Your task to perform on an android device: open app "Google Find My Device" (install if not already installed) Image 0: 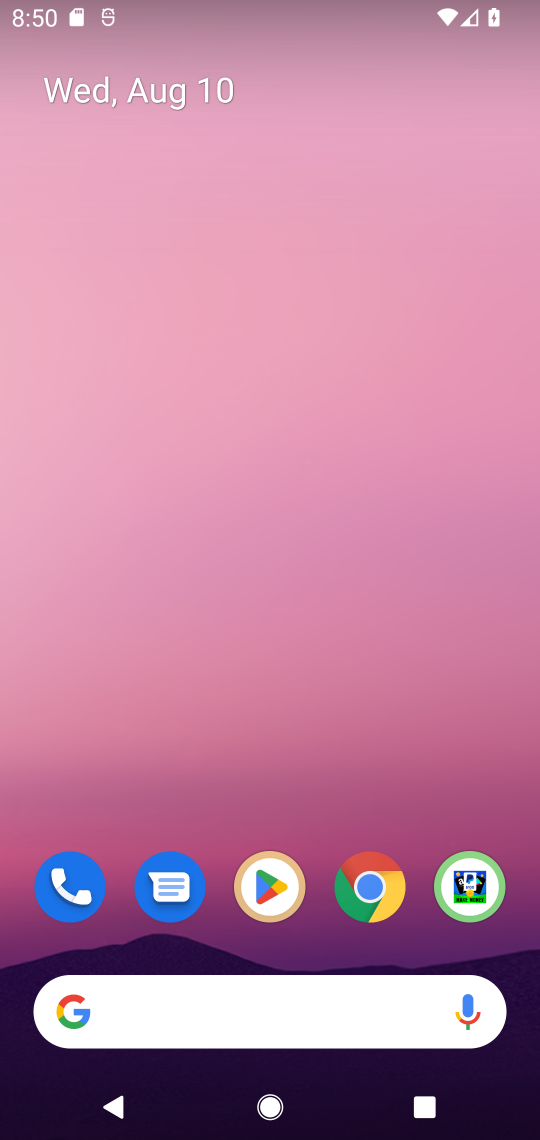
Step 0: drag from (210, 954) to (221, 61)
Your task to perform on an android device: open app "Google Find My Device" (install if not already installed) Image 1: 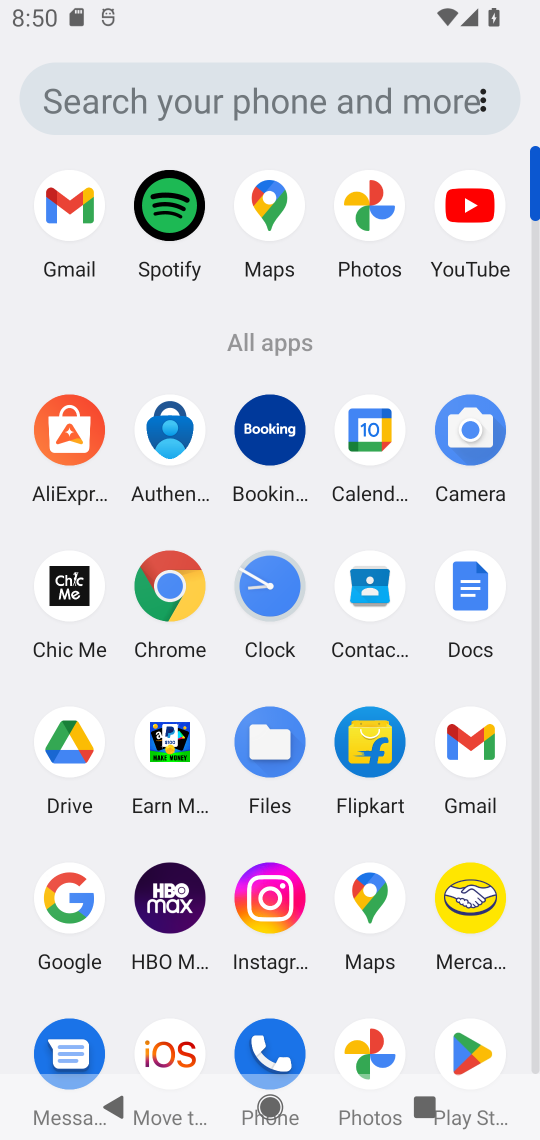
Step 1: click (465, 1037)
Your task to perform on an android device: open app "Google Find My Device" (install if not already installed) Image 2: 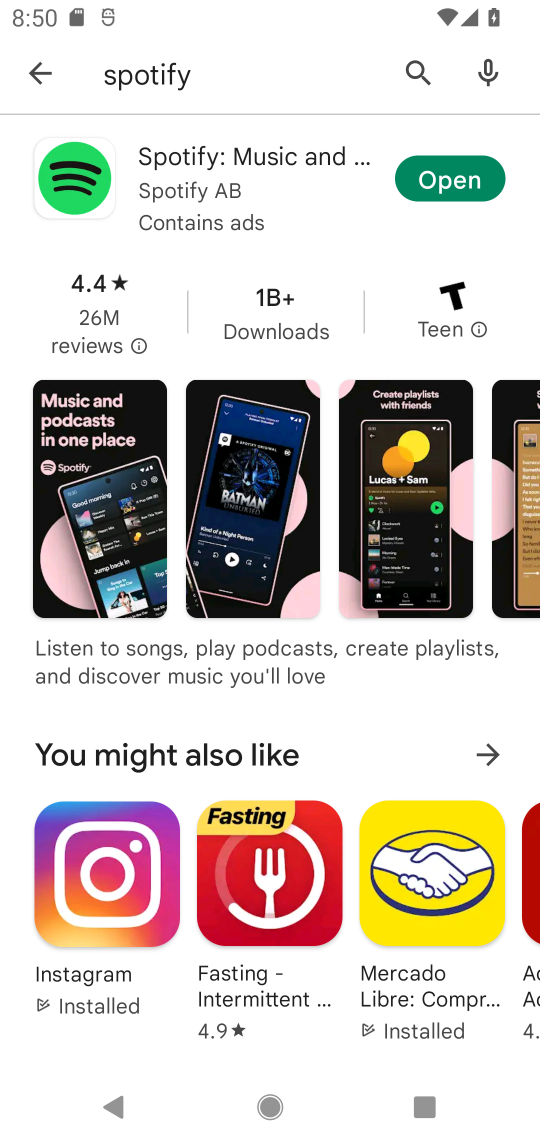
Step 2: click (402, 89)
Your task to perform on an android device: open app "Google Find My Device" (install if not already installed) Image 3: 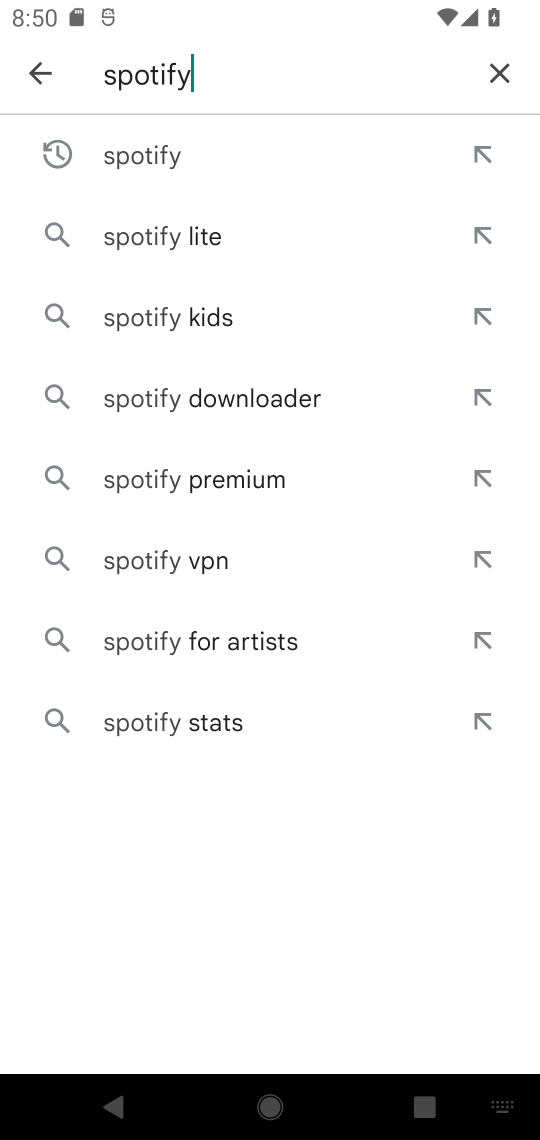
Step 3: click (481, 85)
Your task to perform on an android device: open app "Google Find My Device" (install if not already installed) Image 4: 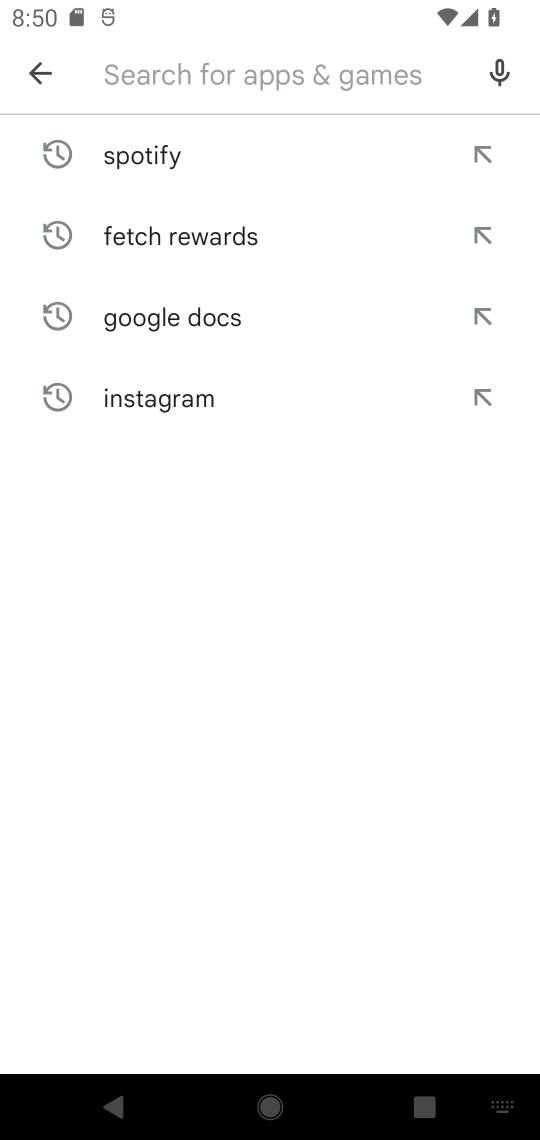
Step 4: type "google find my device"
Your task to perform on an android device: open app "Google Find My Device" (install if not already installed) Image 5: 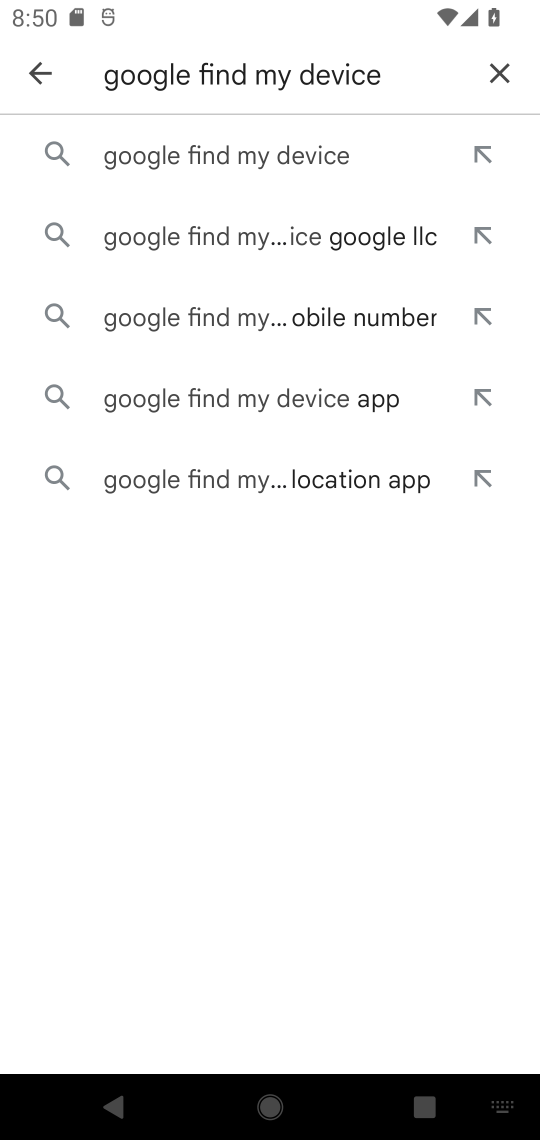
Step 5: click (325, 172)
Your task to perform on an android device: open app "Google Find My Device" (install if not already installed) Image 6: 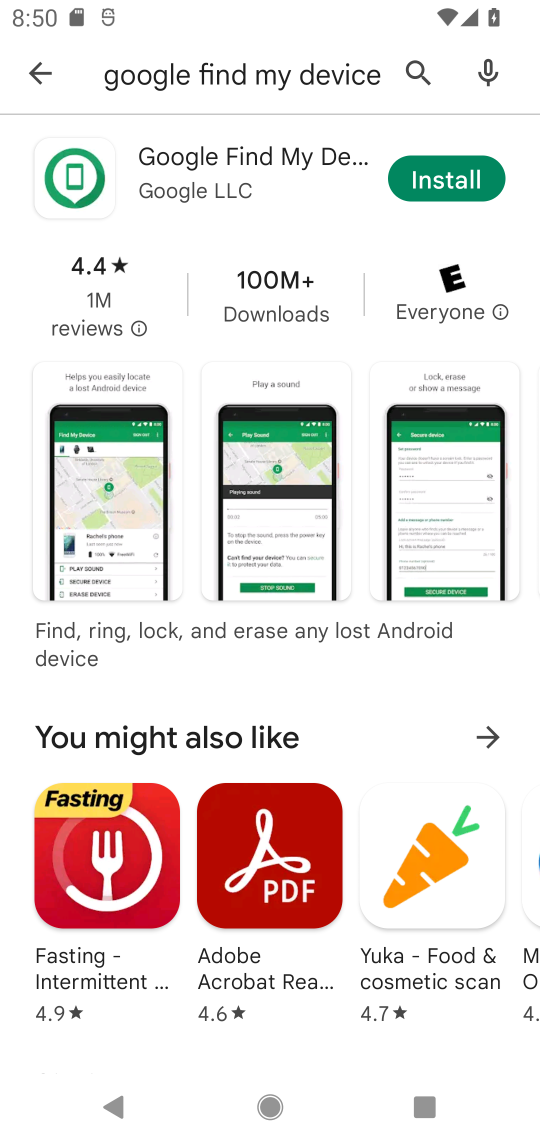
Step 6: click (446, 166)
Your task to perform on an android device: open app "Google Find My Device" (install if not already installed) Image 7: 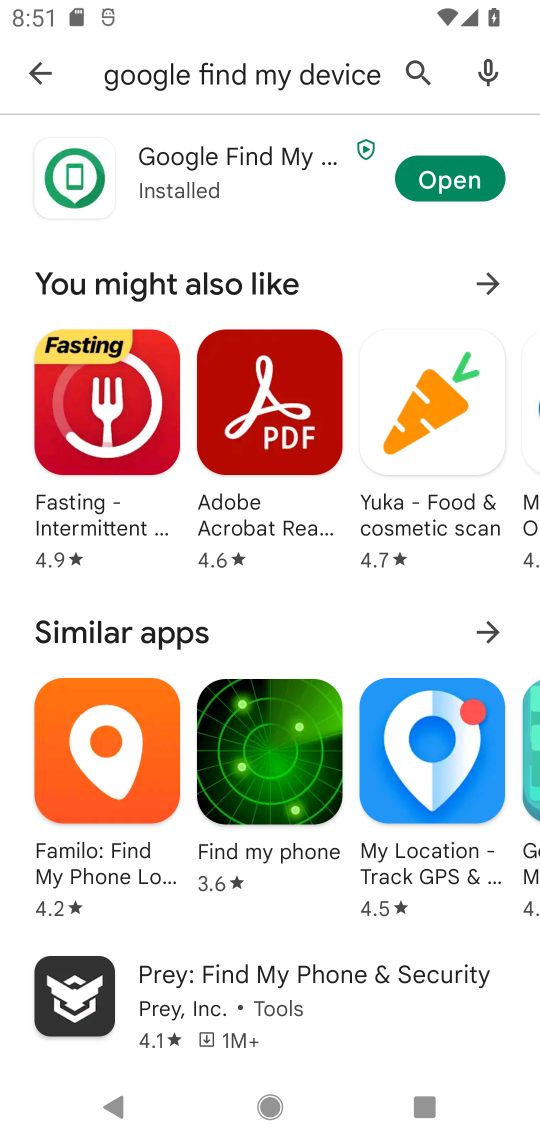
Step 7: click (457, 188)
Your task to perform on an android device: open app "Google Find My Device" (install if not already installed) Image 8: 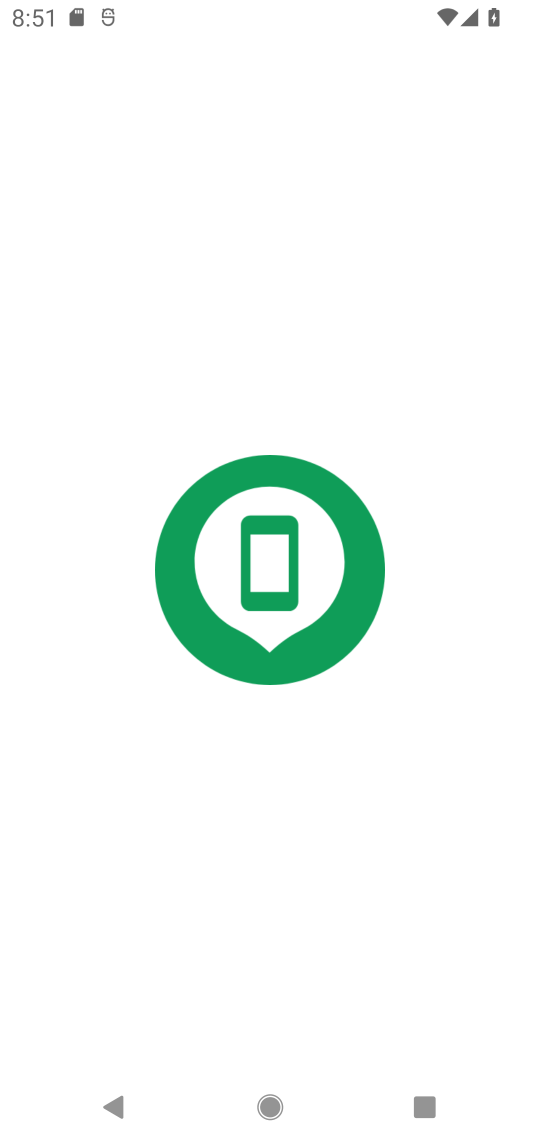
Step 8: task complete